Your task to perform on an android device: Find coffee shops on Maps Image 0: 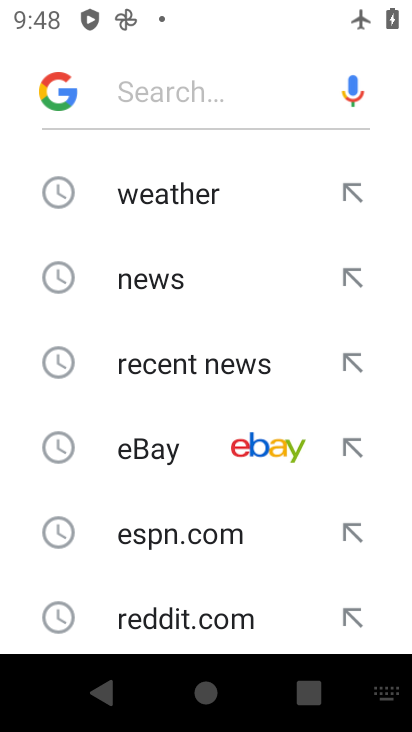
Step 0: press home button
Your task to perform on an android device: Find coffee shops on Maps Image 1: 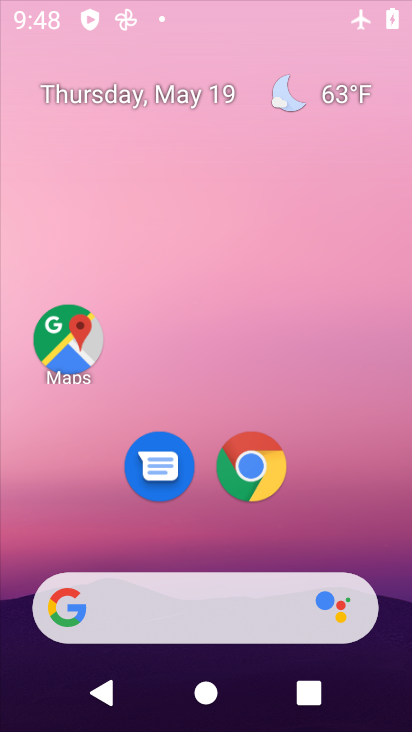
Step 1: drag from (386, 651) to (316, 65)
Your task to perform on an android device: Find coffee shops on Maps Image 2: 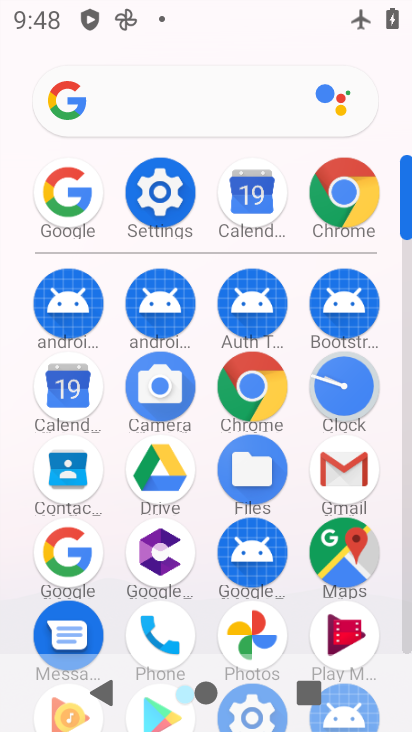
Step 2: click (338, 565)
Your task to perform on an android device: Find coffee shops on Maps Image 3: 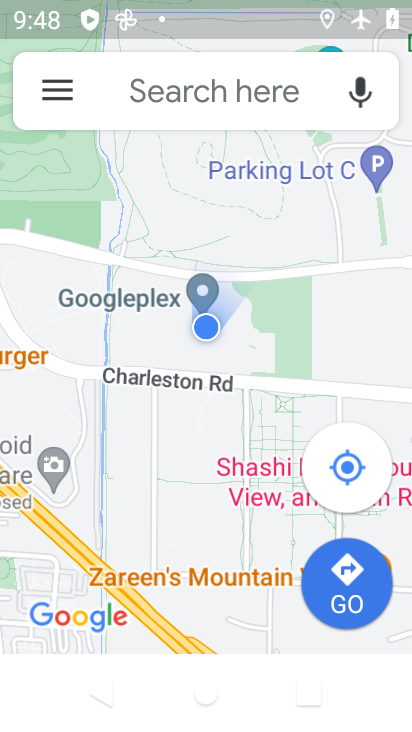
Step 3: click (138, 89)
Your task to perform on an android device: Find coffee shops on Maps Image 4: 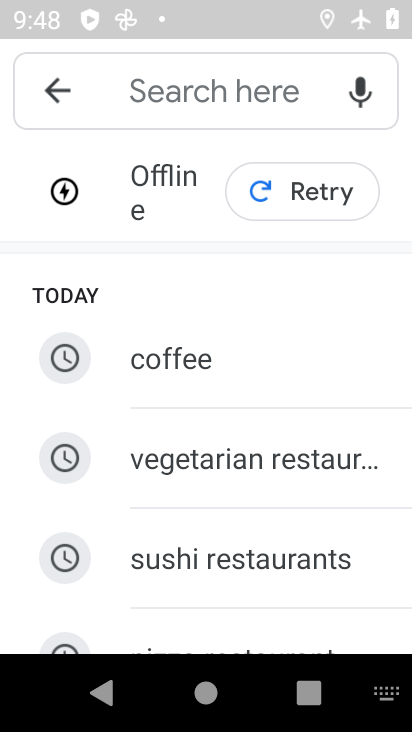
Step 4: click (176, 352)
Your task to perform on an android device: Find coffee shops on Maps Image 5: 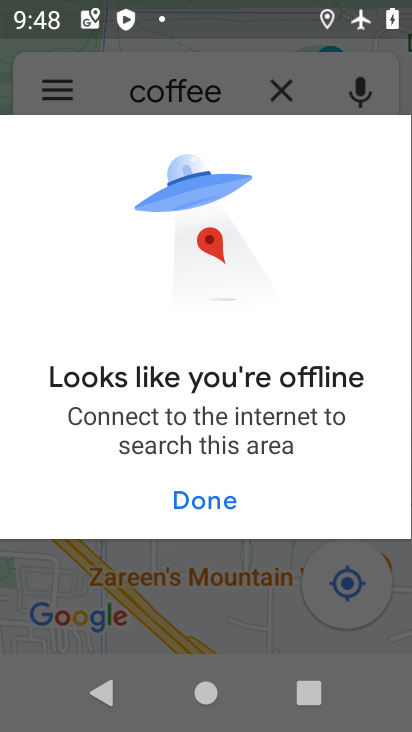
Step 5: task complete